Your task to perform on an android device: toggle airplane mode Image 0: 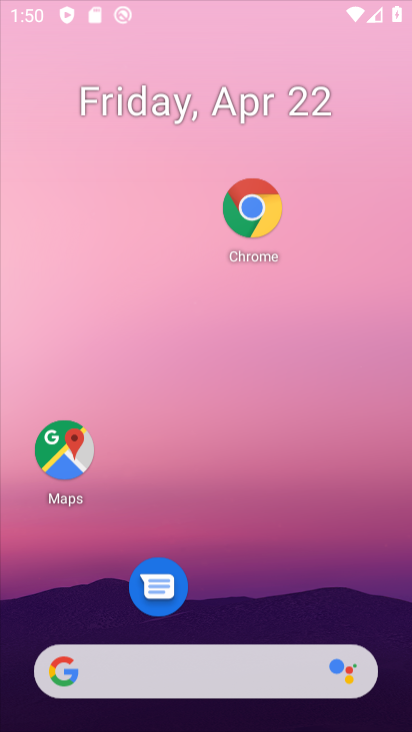
Step 0: click (244, 140)
Your task to perform on an android device: toggle airplane mode Image 1: 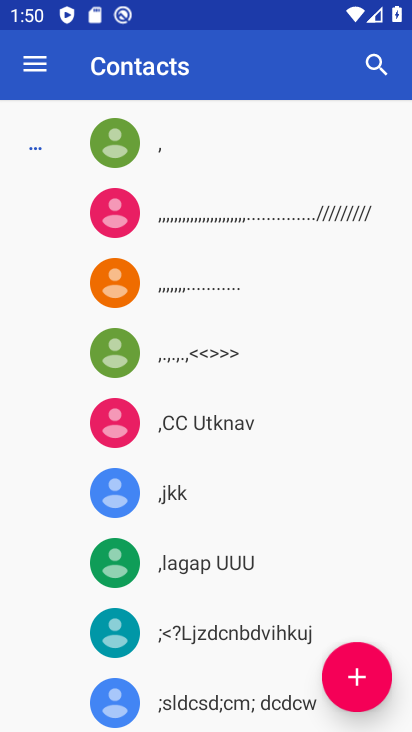
Step 1: drag from (219, 460) to (217, 273)
Your task to perform on an android device: toggle airplane mode Image 2: 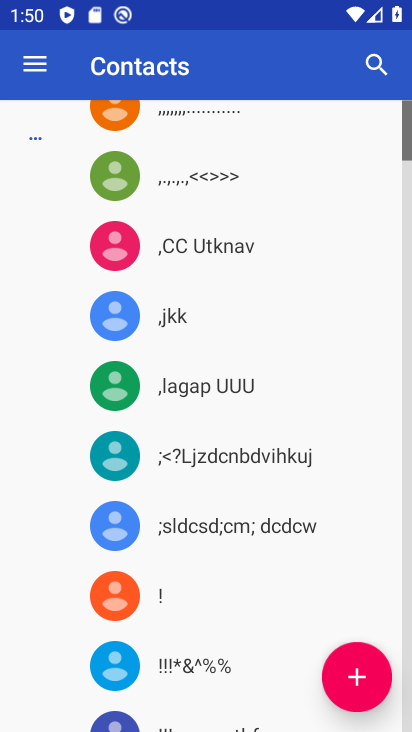
Step 2: drag from (209, 239) to (307, 603)
Your task to perform on an android device: toggle airplane mode Image 3: 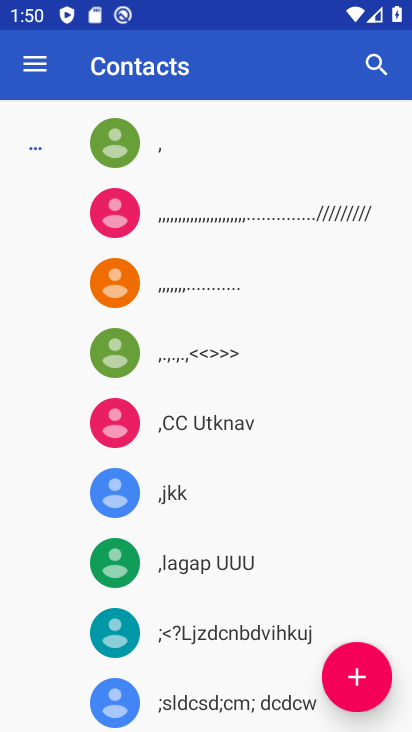
Step 3: press home button
Your task to perform on an android device: toggle airplane mode Image 4: 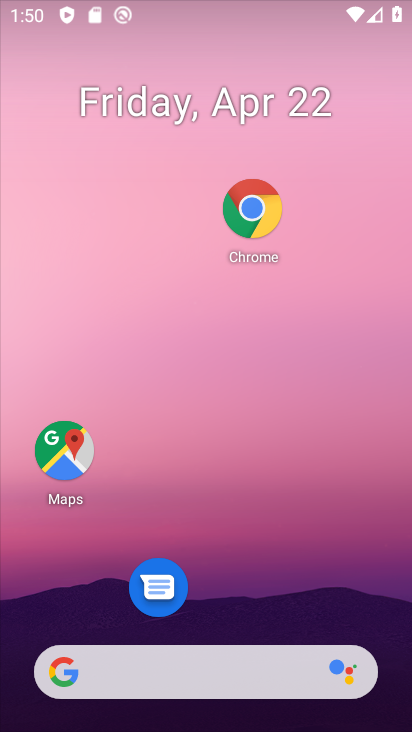
Step 4: drag from (227, 599) to (240, 154)
Your task to perform on an android device: toggle airplane mode Image 5: 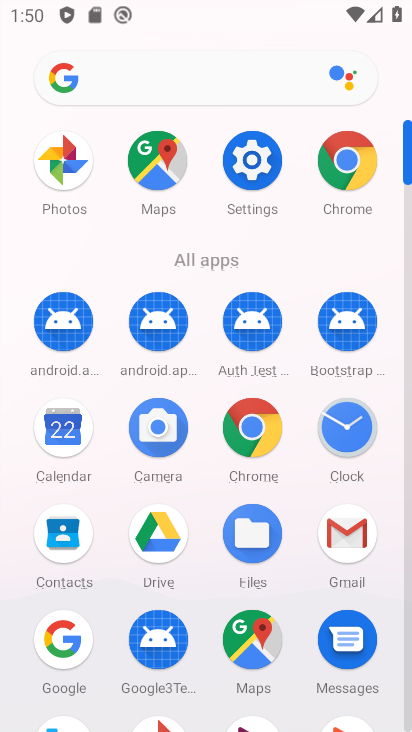
Step 5: click (255, 146)
Your task to perform on an android device: toggle airplane mode Image 6: 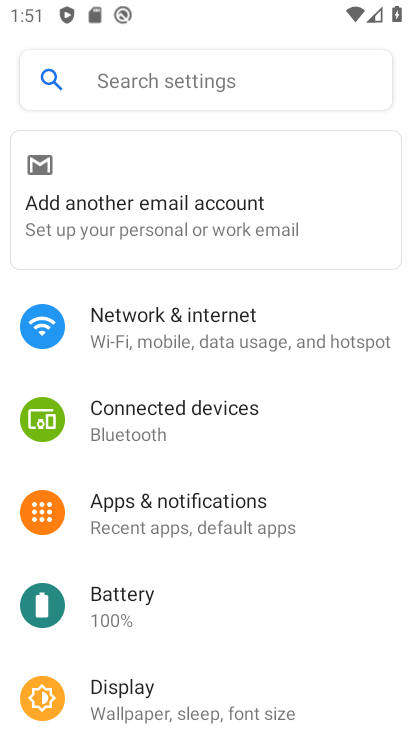
Step 6: drag from (256, 550) to (271, 246)
Your task to perform on an android device: toggle airplane mode Image 7: 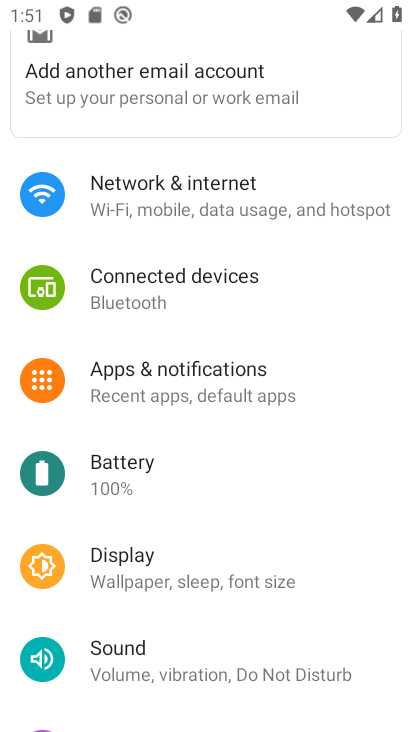
Step 7: drag from (180, 561) to (196, 277)
Your task to perform on an android device: toggle airplane mode Image 8: 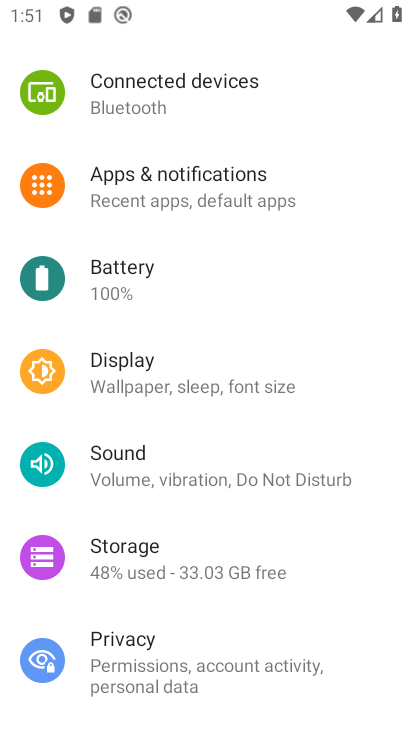
Step 8: drag from (202, 202) to (209, 573)
Your task to perform on an android device: toggle airplane mode Image 9: 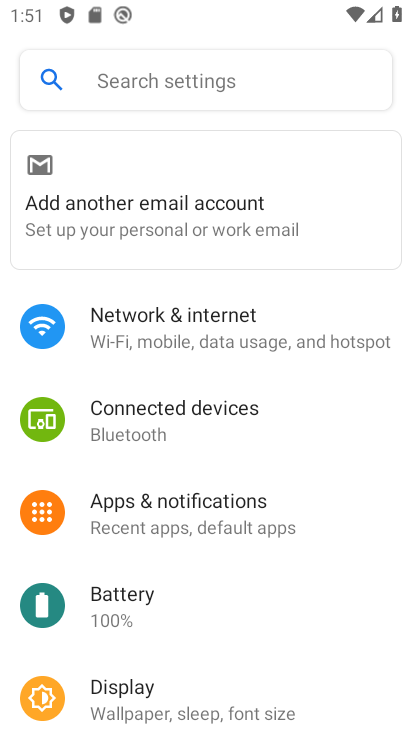
Step 9: click (166, 325)
Your task to perform on an android device: toggle airplane mode Image 10: 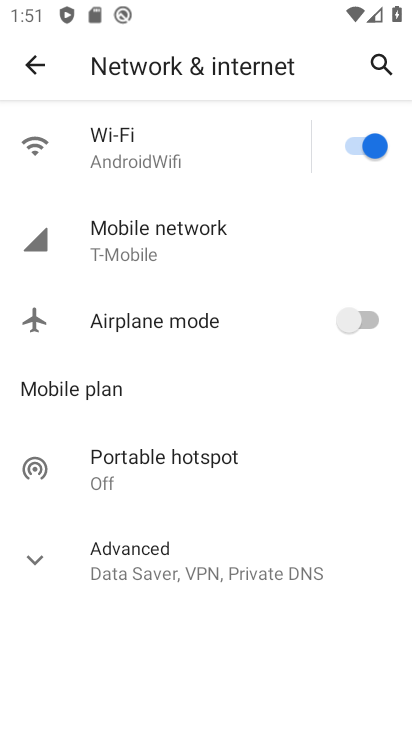
Step 10: click (205, 316)
Your task to perform on an android device: toggle airplane mode Image 11: 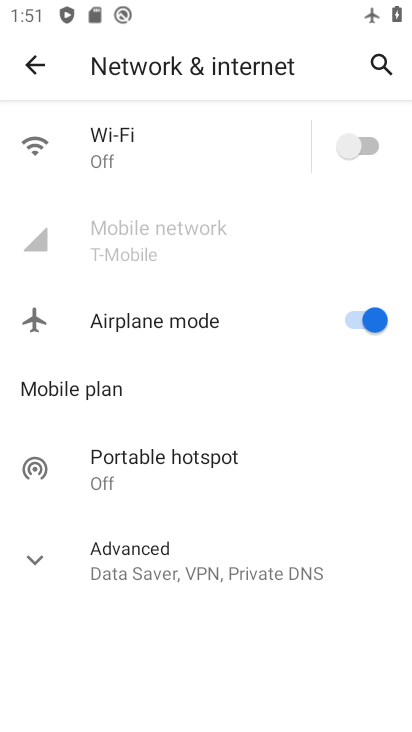
Step 11: task complete